Your task to perform on an android device: Open Google Image 0: 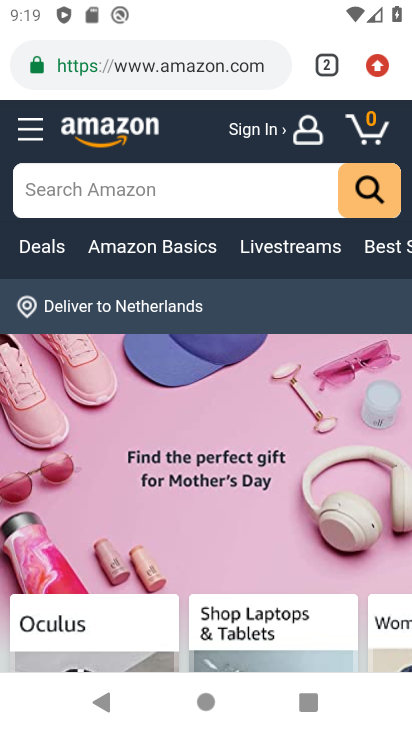
Step 0: press home button
Your task to perform on an android device: Open Google Image 1: 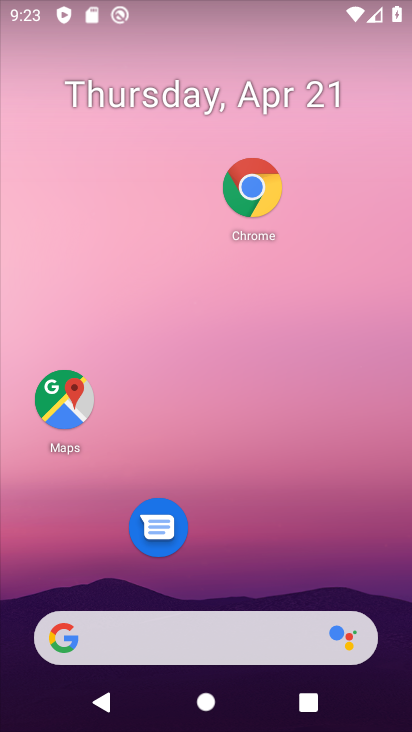
Step 1: drag from (262, 390) to (277, 98)
Your task to perform on an android device: Open Google Image 2: 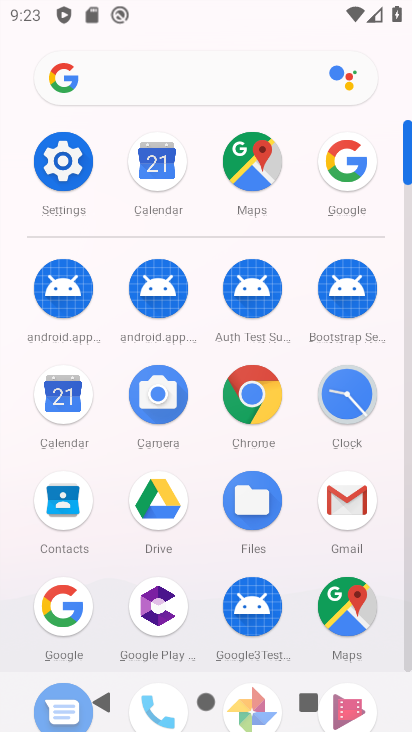
Step 2: drag from (281, 546) to (300, 263)
Your task to perform on an android device: Open Google Image 3: 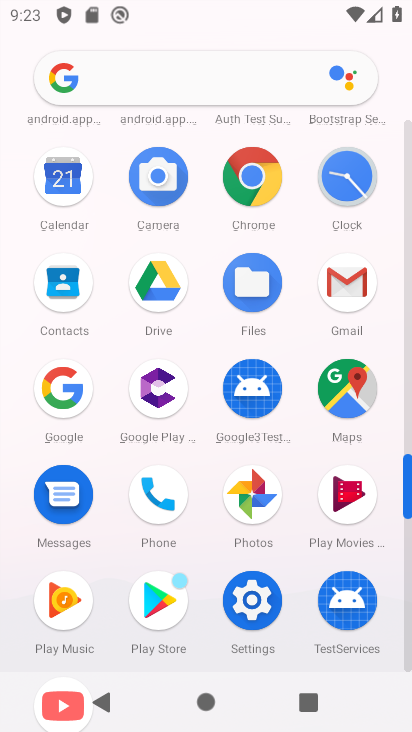
Step 3: click (71, 396)
Your task to perform on an android device: Open Google Image 4: 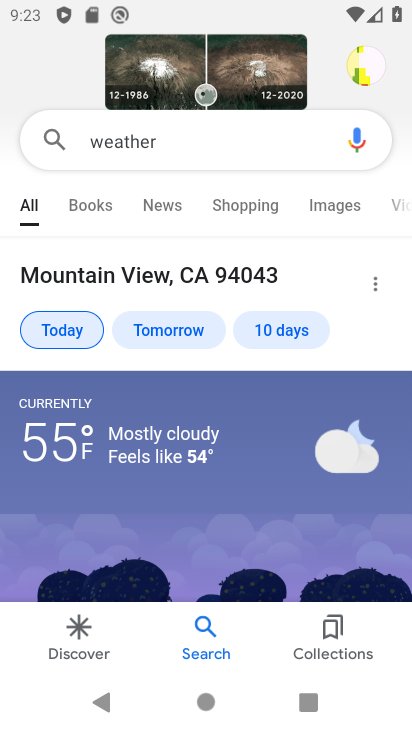
Step 4: task complete